Your task to perform on an android device: Search for Mexican restaurants on Maps Image 0: 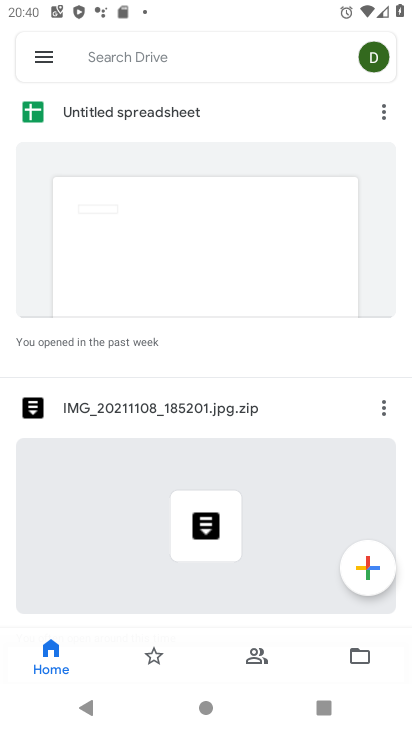
Step 0: press home button
Your task to perform on an android device: Search for Mexican restaurants on Maps Image 1: 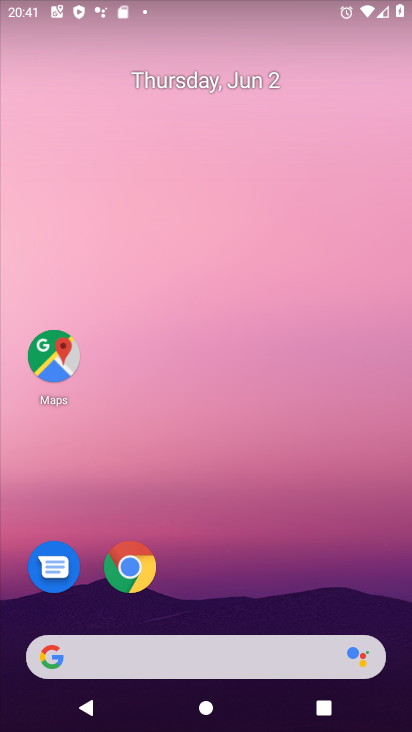
Step 1: click (55, 357)
Your task to perform on an android device: Search for Mexican restaurants on Maps Image 2: 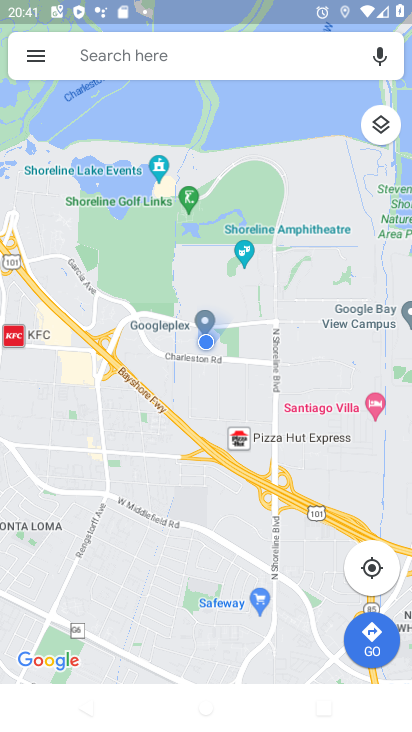
Step 2: click (124, 55)
Your task to perform on an android device: Search for Mexican restaurants on Maps Image 3: 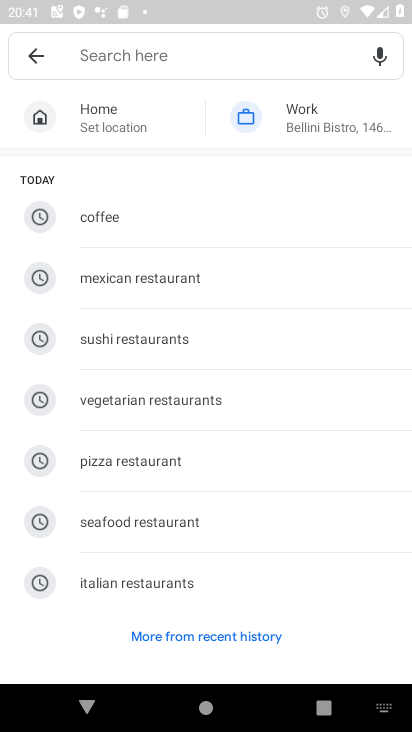
Step 3: type "Mexican restaurants"
Your task to perform on an android device: Search for Mexican restaurants on Maps Image 4: 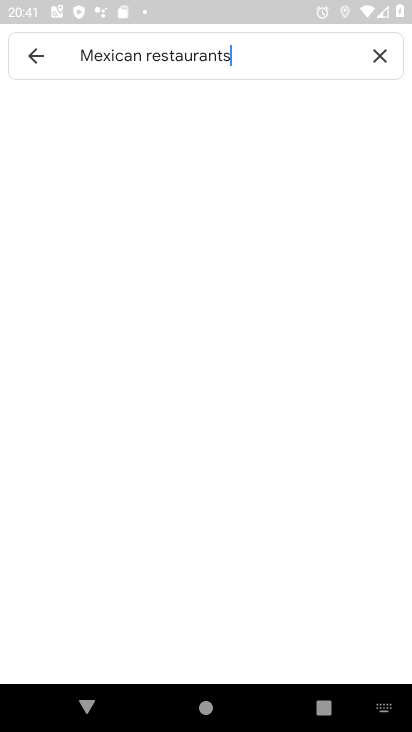
Step 4: type ""
Your task to perform on an android device: Search for Mexican restaurants on Maps Image 5: 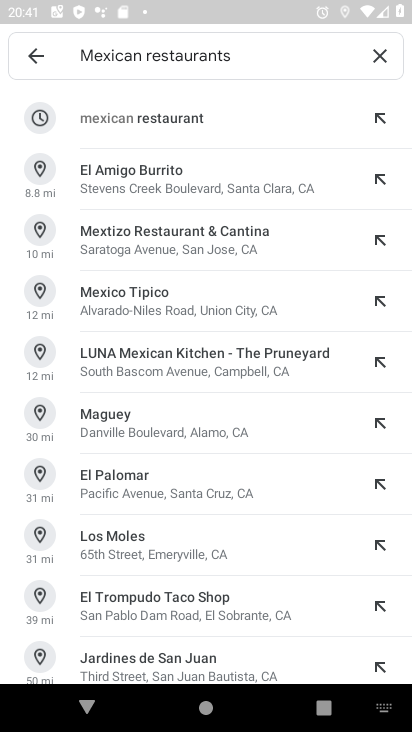
Step 5: click (171, 119)
Your task to perform on an android device: Search for Mexican restaurants on Maps Image 6: 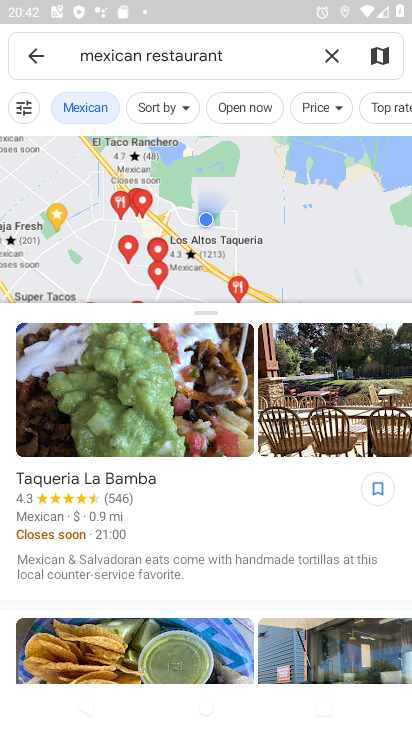
Step 6: task complete